Your task to perform on an android device: set the stopwatch Image 0: 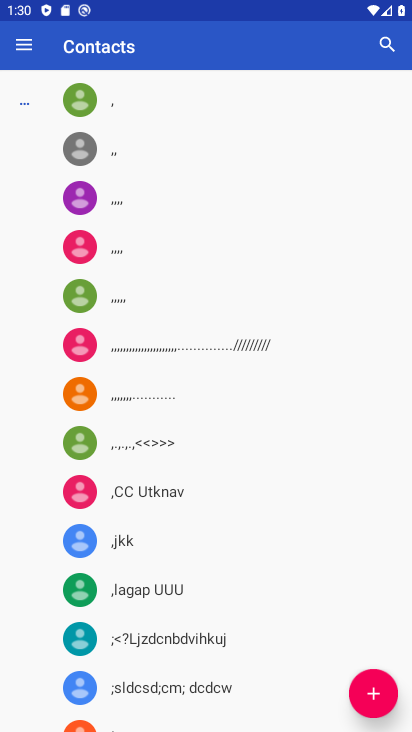
Step 0: press home button
Your task to perform on an android device: set the stopwatch Image 1: 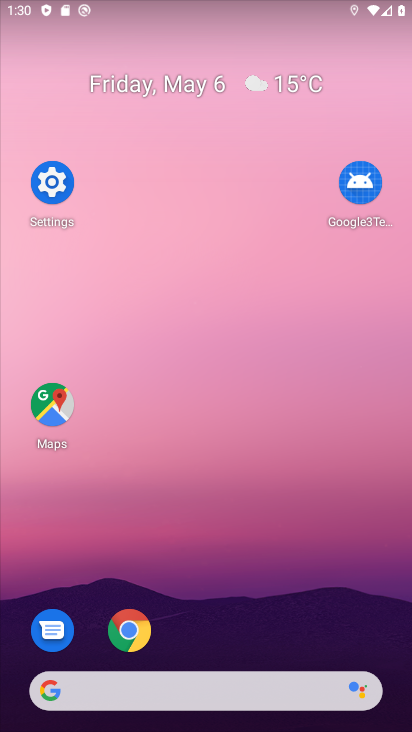
Step 1: drag from (242, 617) to (294, 58)
Your task to perform on an android device: set the stopwatch Image 2: 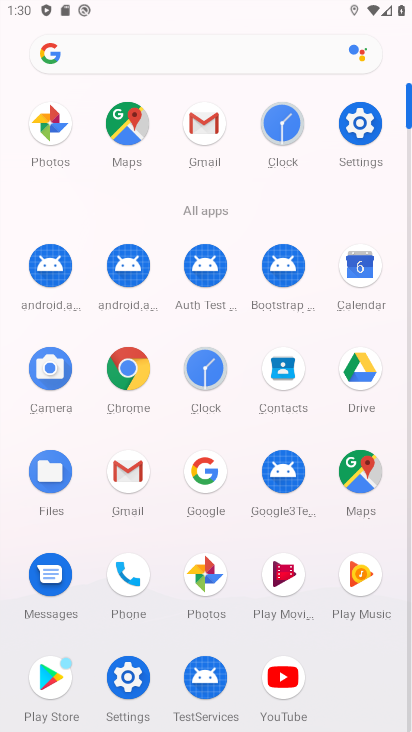
Step 2: drag from (287, 136) to (132, 205)
Your task to perform on an android device: set the stopwatch Image 3: 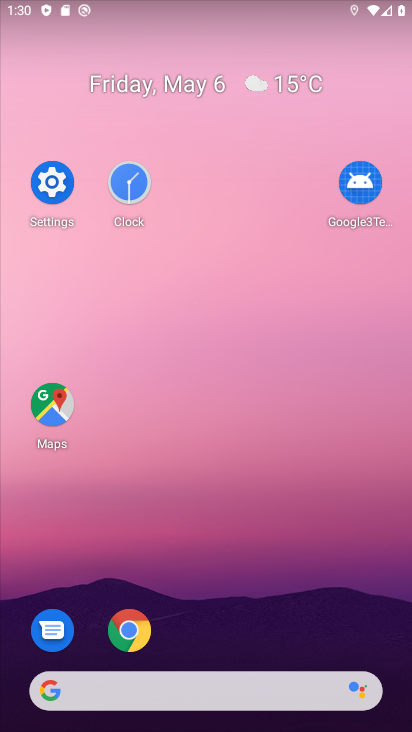
Step 3: click (122, 185)
Your task to perform on an android device: set the stopwatch Image 4: 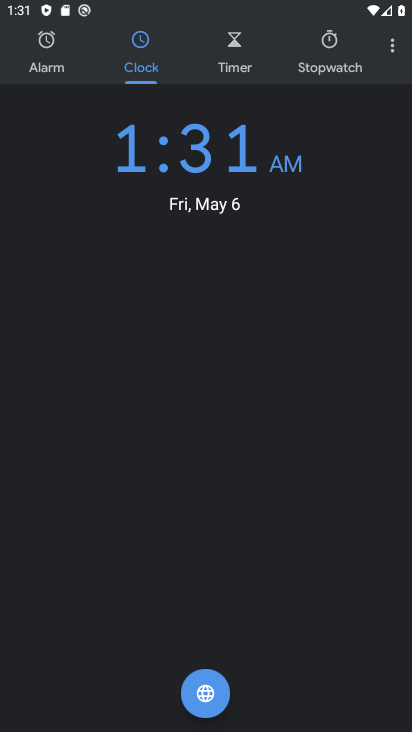
Step 4: click (311, 48)
Your task to perform on an android device: set the stopwatch Image 5: 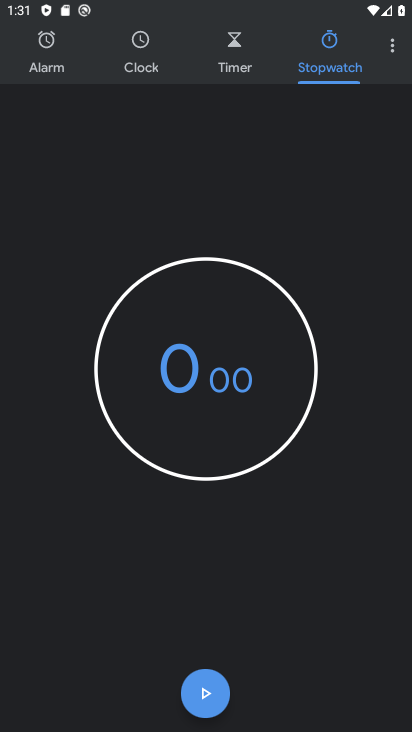
Step 5: click (201, 681)
Your task to perform on an android device: set the stopwatch Image 6: 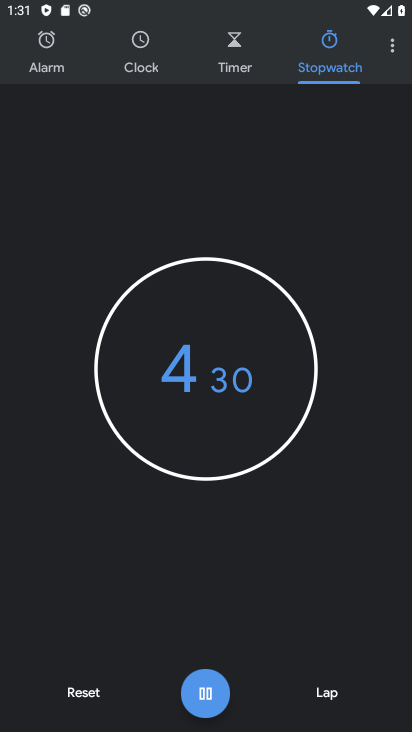
Step 6: task complete